Your task to perform on an android device: turn off airplane mode Image 0: 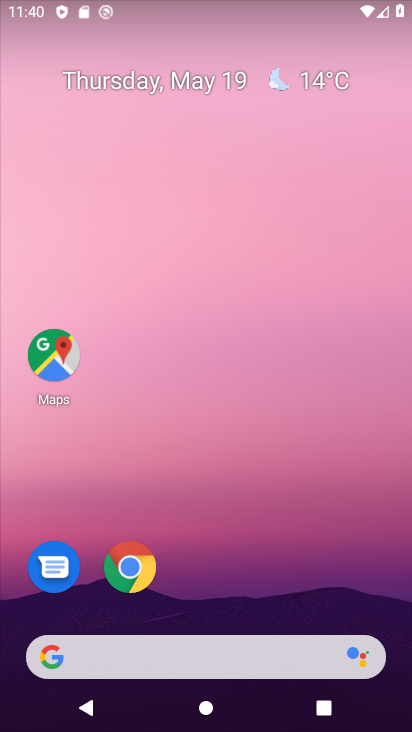
Step 0: drag from (329, 581) to (351, 105)
Your task to perform on an android device: turn off airplane mode Image 1: 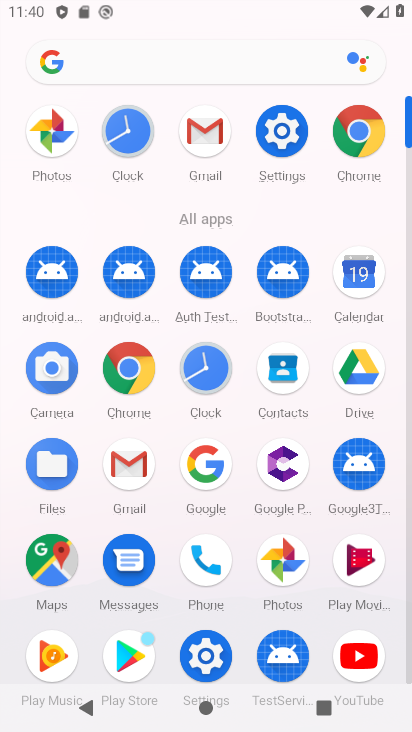
Step 1: click (270, 134)
Your task to perform on an android device: turn off airplane mode Image 2: 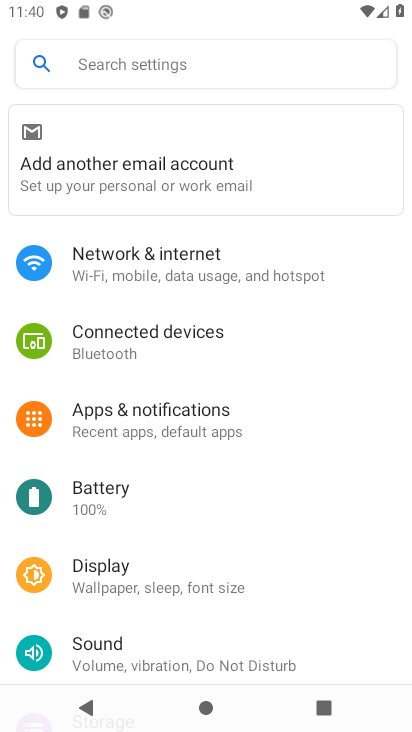
Step 2: click (166, 255)
Your task to perform on an android device: turn off airplane mode Image 3: 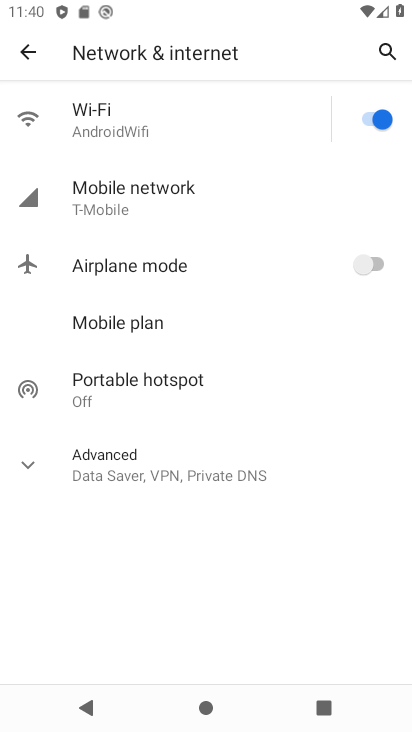
Step 3: click (150, 265)
Your task to perform on an android device: turn off airplane mode Image 4: 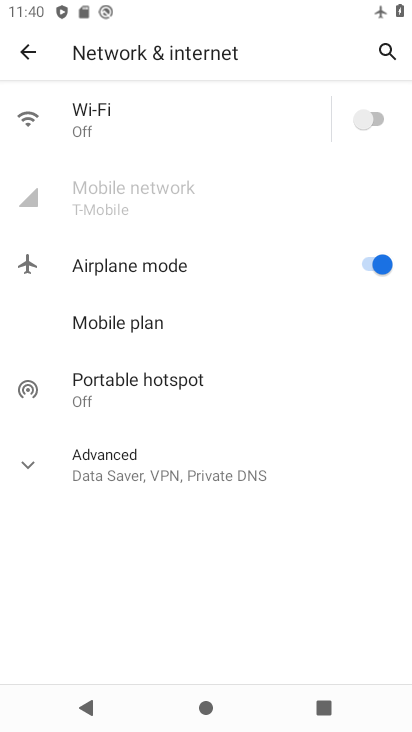
Step 4: click (364, 265)
Your task to perform on an android device: turn off airplane mode Image 5: 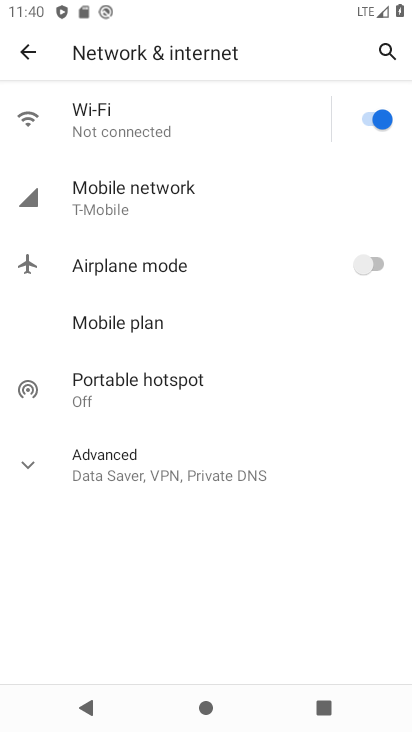
Step 5: task complete